Your task to perform on an android device: Open calendar and show me the fourth week of next month Image 0: 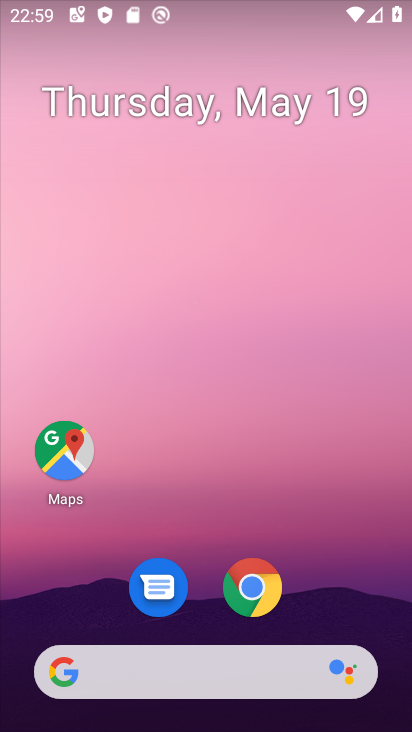
Step 0: drag from (290, 690) to (183, 191)
Your task to perform on an android device: Open calendar and show me the fourth week of next month Image 1: 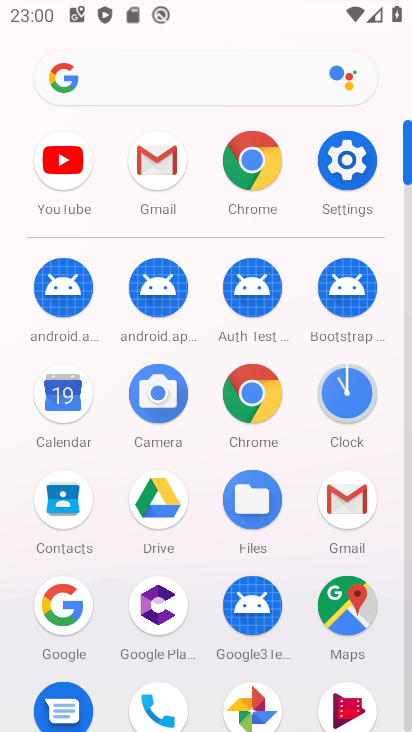
Step 1: click (63, 393)
Your task to perform on an android device: Open calendar and show me the fourth week of next month Image 2: 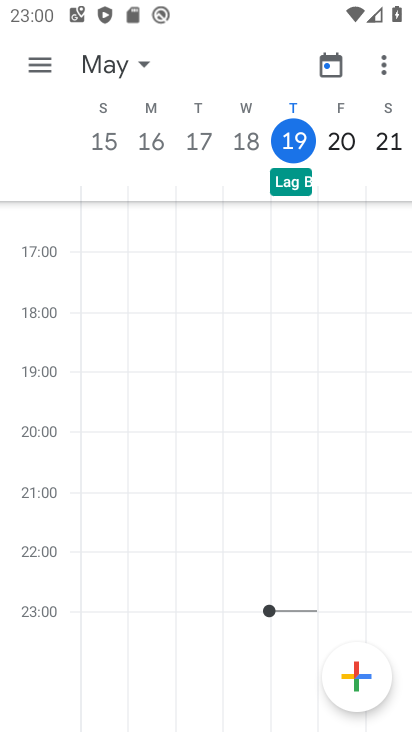
Step 2: click (40, 77)
Your task to perform on an android device: Open calendar and show me the fourth week of next month Image 3: 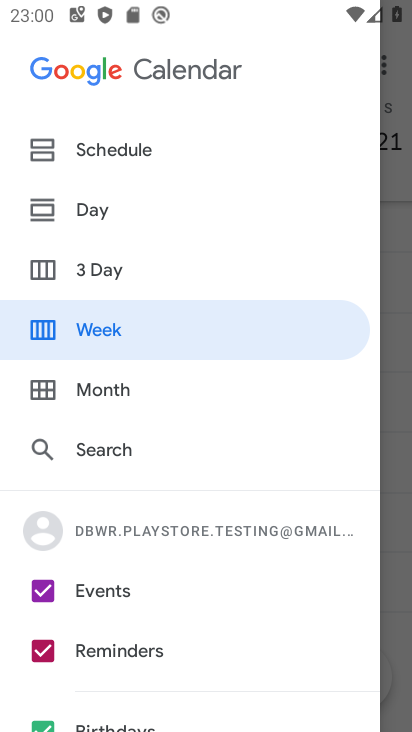
Step 3: click (101, 383)
Your task to perform on an android device: Open calendar and show me the fourth week of next month Image 4: 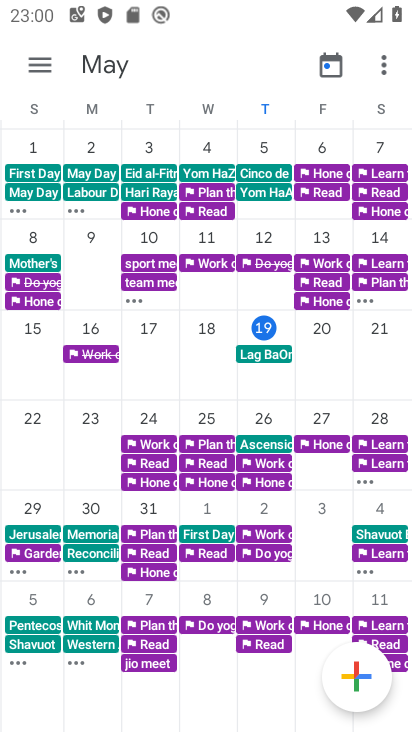
Step 4: drag from (368, 369) to (13, 322)
Your task to perform on an android device: Open calendar and show me the fourth week of next month Image 5: 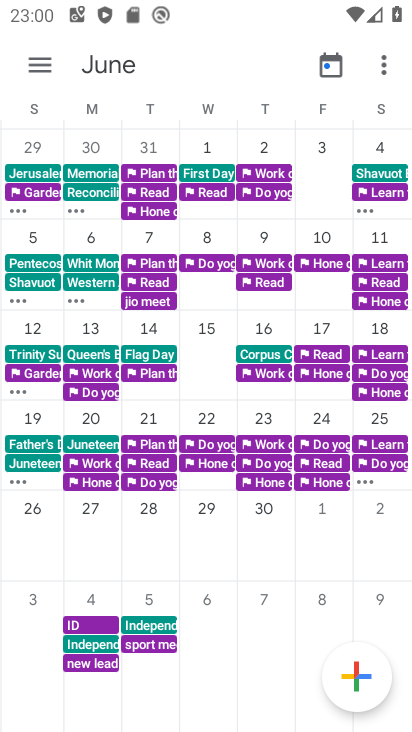
Step 5: click (130, 528)
Your task to perform on an android device: Open calendar and show me the fourth week of next month Image 6: 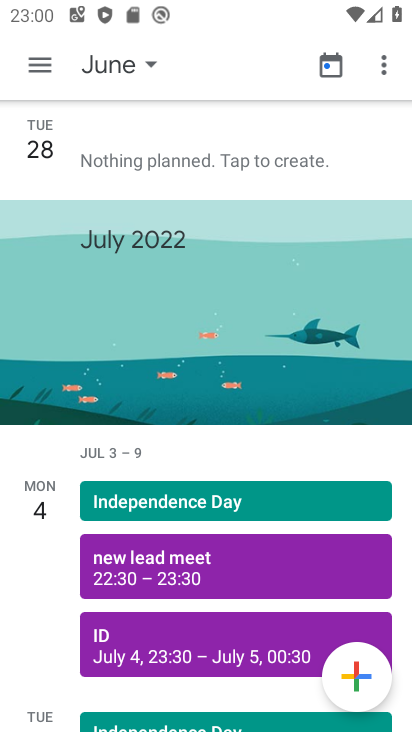
Step 6: task complete